Your task to perform on an android device: change notification settings in the gmail app Image 0: 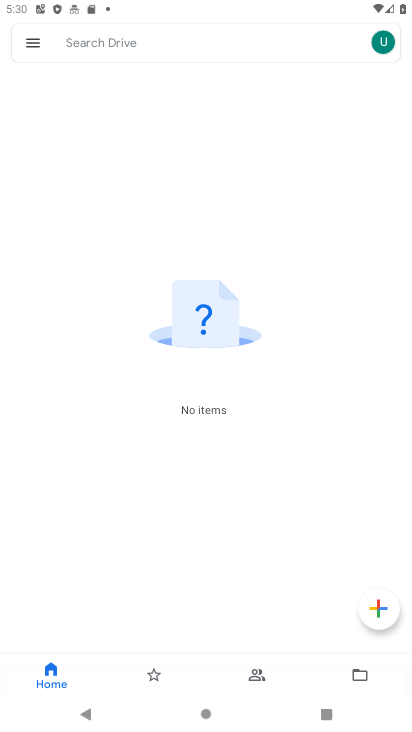
Step 0: press home button
Your task to perform on an android device: change notification settings in the gmail app Image 1: 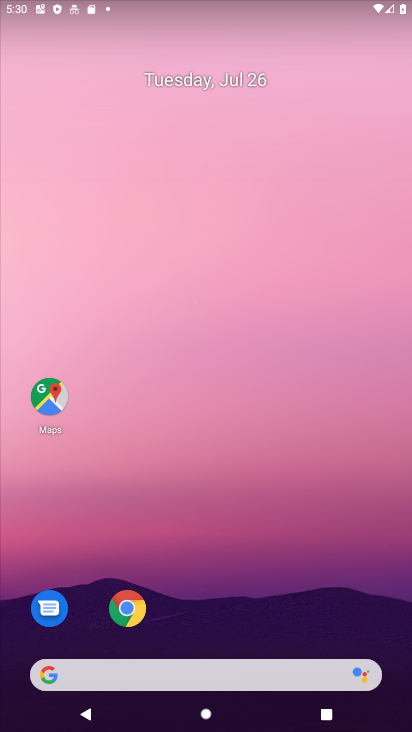
Step 1: drag from (216, 646) to (108, 105)
Your task to perform on an android device: change notification settings in the gmail app Image 2: 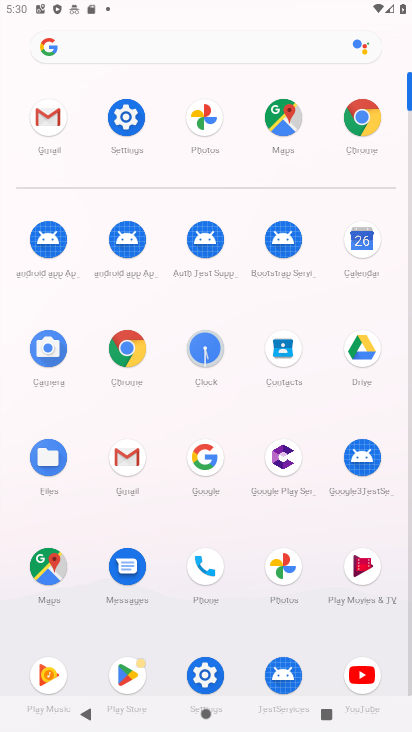
Step 2: click (57, 134)
Your task to perform on an android device: change notification settings in the gmail app Image 3: 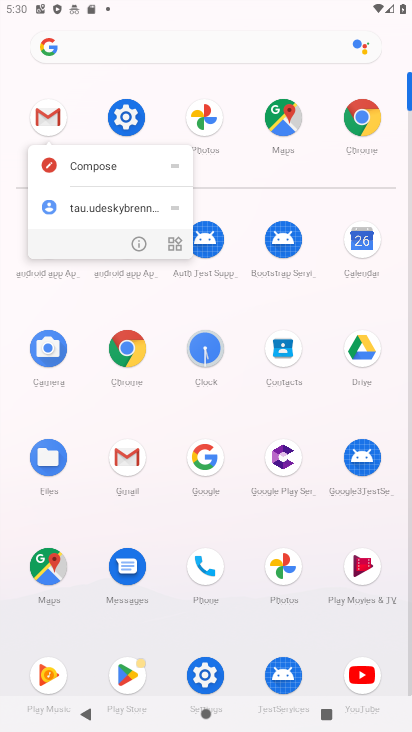
Step 3: click (49, 124)
Your task to perform on an android device: change notification settings in the gmail app Image 4: 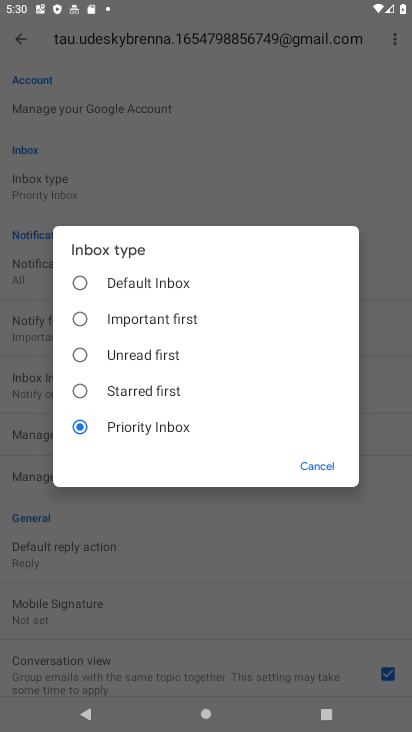
Step 4: click (313, 456)
Your task to perform on an android device: change notification settings in the gmail app Image 5: 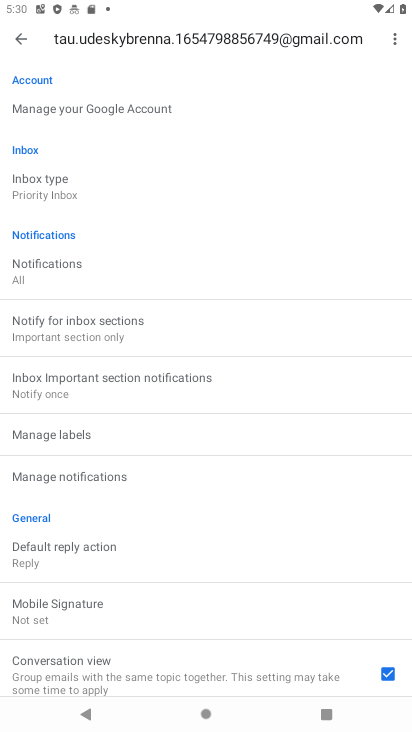
Step 5: click (85, 476)
Your task to perform on an android device: change notification settings in the gmail app Image 6: 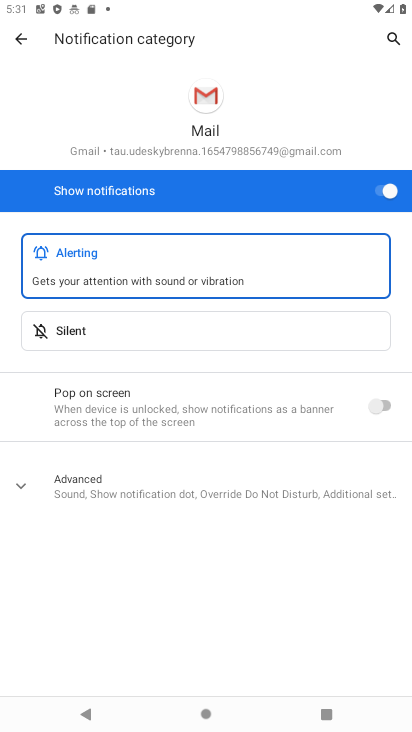
Step 6: click (389, 193)
Your task to perform on an android device: change notification settings in the gmail app Image 7: 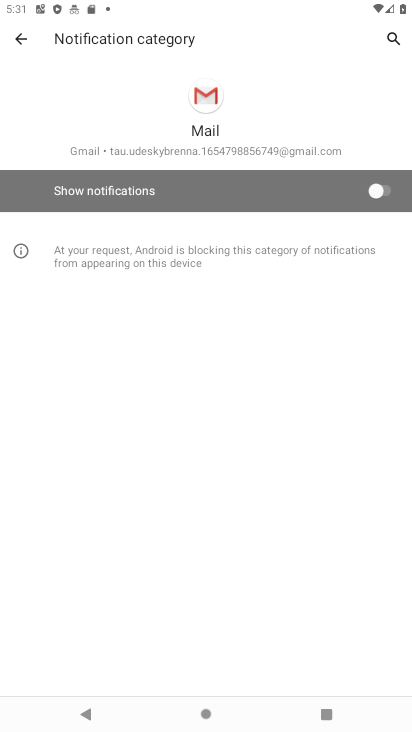
Step 7: task complete